Your task to perform on an android device: Open Youtube and go to "Your channel" Image 0: 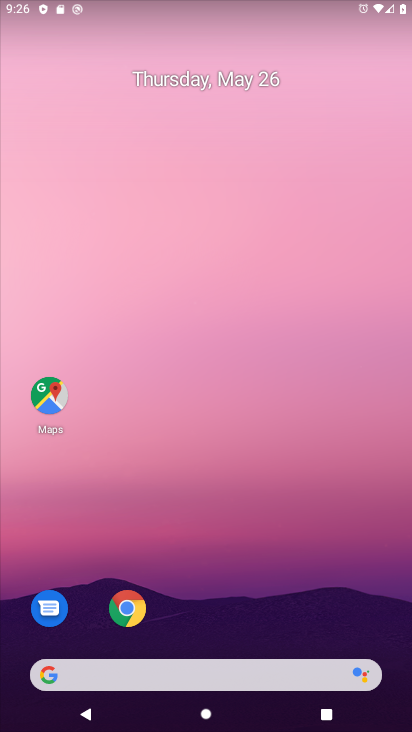
Step 0: drag from (287, 552) to (228, 7)
Your task to perform on an android device: Open Youtube and go to "Your channel" Image 1: 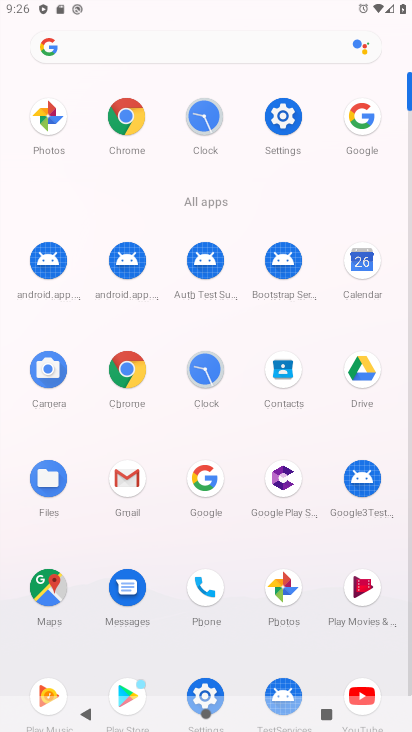
Step 1: click (365, 691)
Your task to perform on an android device: Open Youtube and go to "Your channel" Image 2: 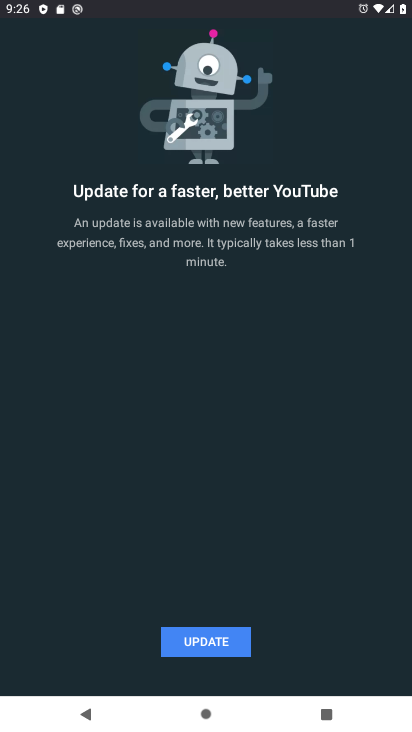
Step 2: click (226, 642)
Your task to perform on an android device: Open Youtube and go to "Your channel" Image 3: 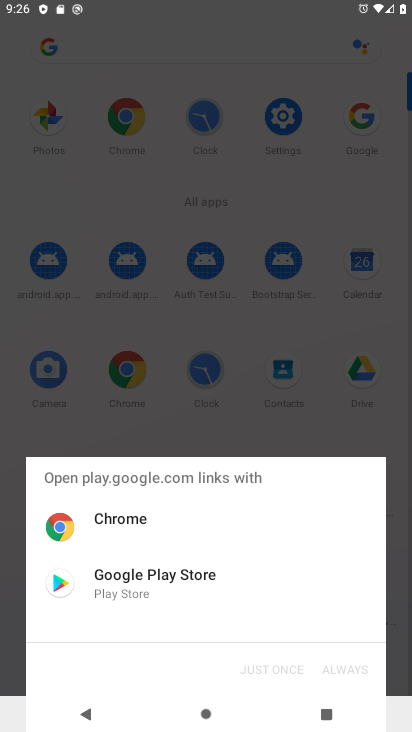
Step 3: click (144, 577)
Your task to perform on an android device: Open Youtube and go to "Your channel" Image 4: 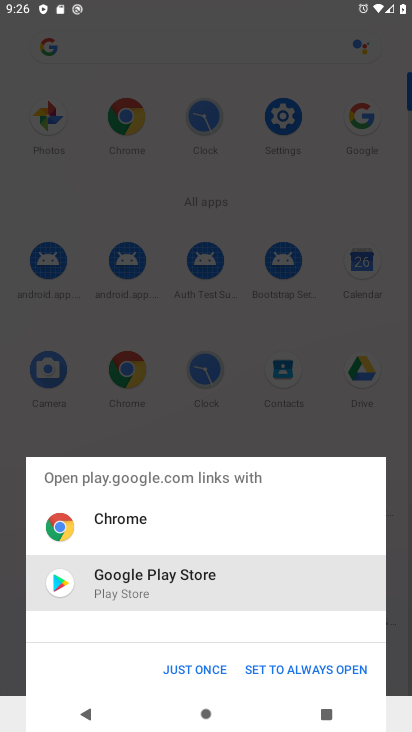
Step 4: click (195, 666)
Your task to perform on an android device: Open Youtube and go to "Your channel" Image 5: 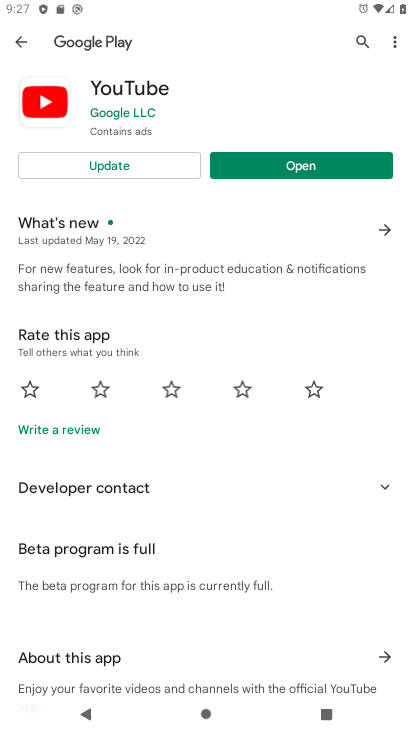
Step 5: click (160, 169)
Your task to perform on an android device: Open Youtube and go to "Your channel" Image 6: 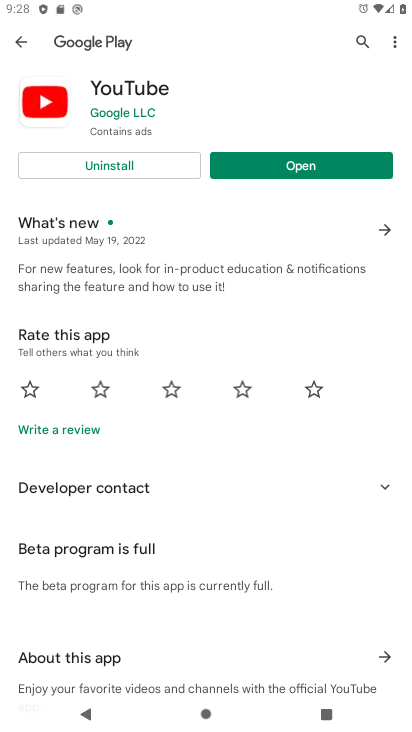
Step 6: click (330, 164)
Your task to perform on an android device: Open Youtube and go to "Your channel" Image 7: 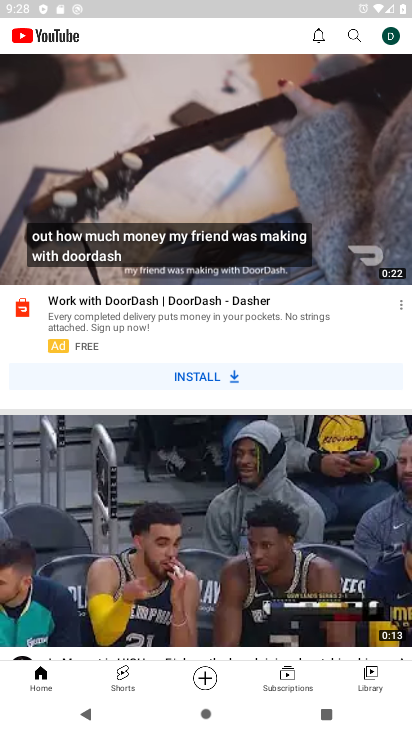
Step 7: click (391, 41)
Your task to perform on an android device: Open Youtube and go to "Your channel" Image 8: 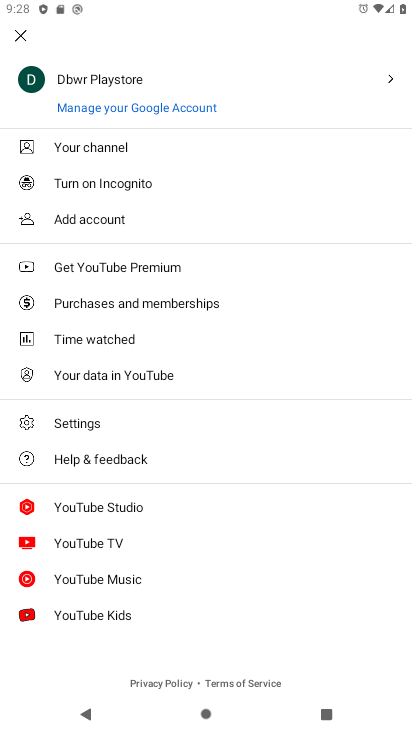
Step 8: click (94, 147)
Your task to perform on an android device: Open Youtube and go to "Your channel" Image 9: 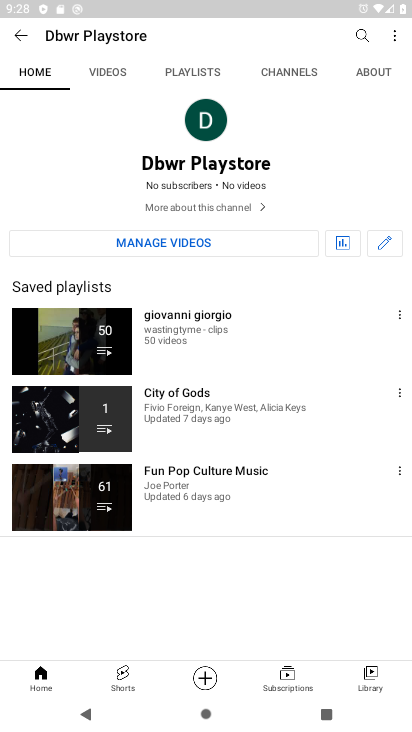
Step 9: task complete